Your task to perform on an android device: Open Google Image 0: 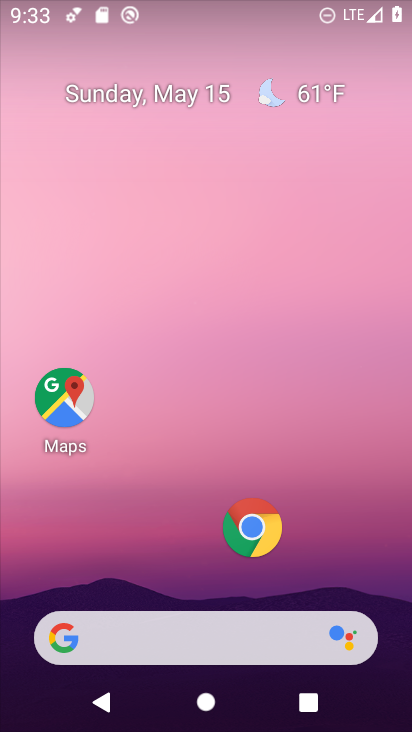
Step 0: drag from (183, 569) to (250, 103)
Your task to perform on an android device: Open Google Image 1: 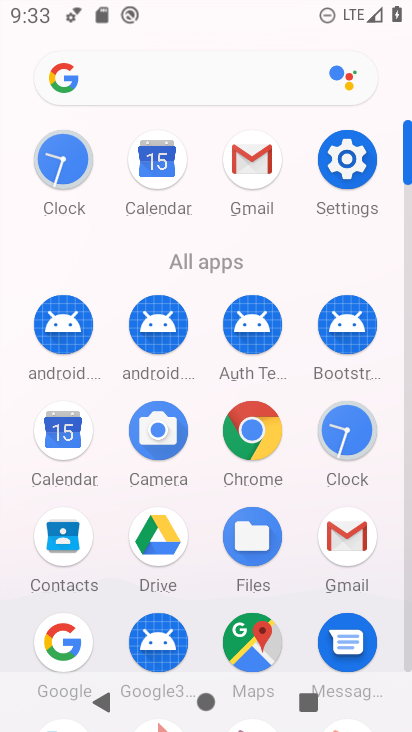
Step 1: click (58, 643)
Your task to perform on an android device: Open Google Image 2: 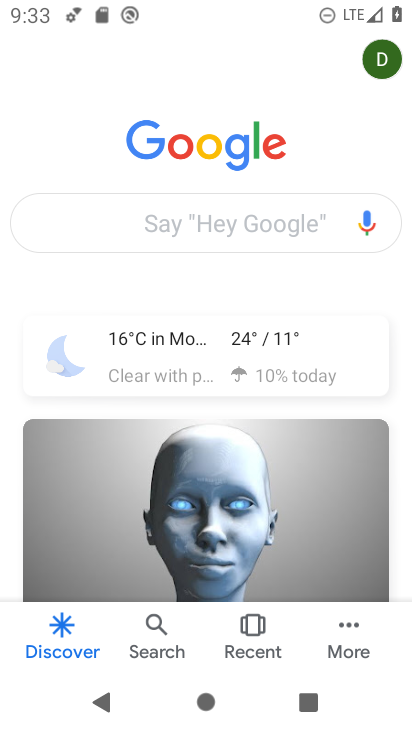
Step 2: task complete